Your task to perform on an android device: Add acer predator to the cart on target.com Image 0: 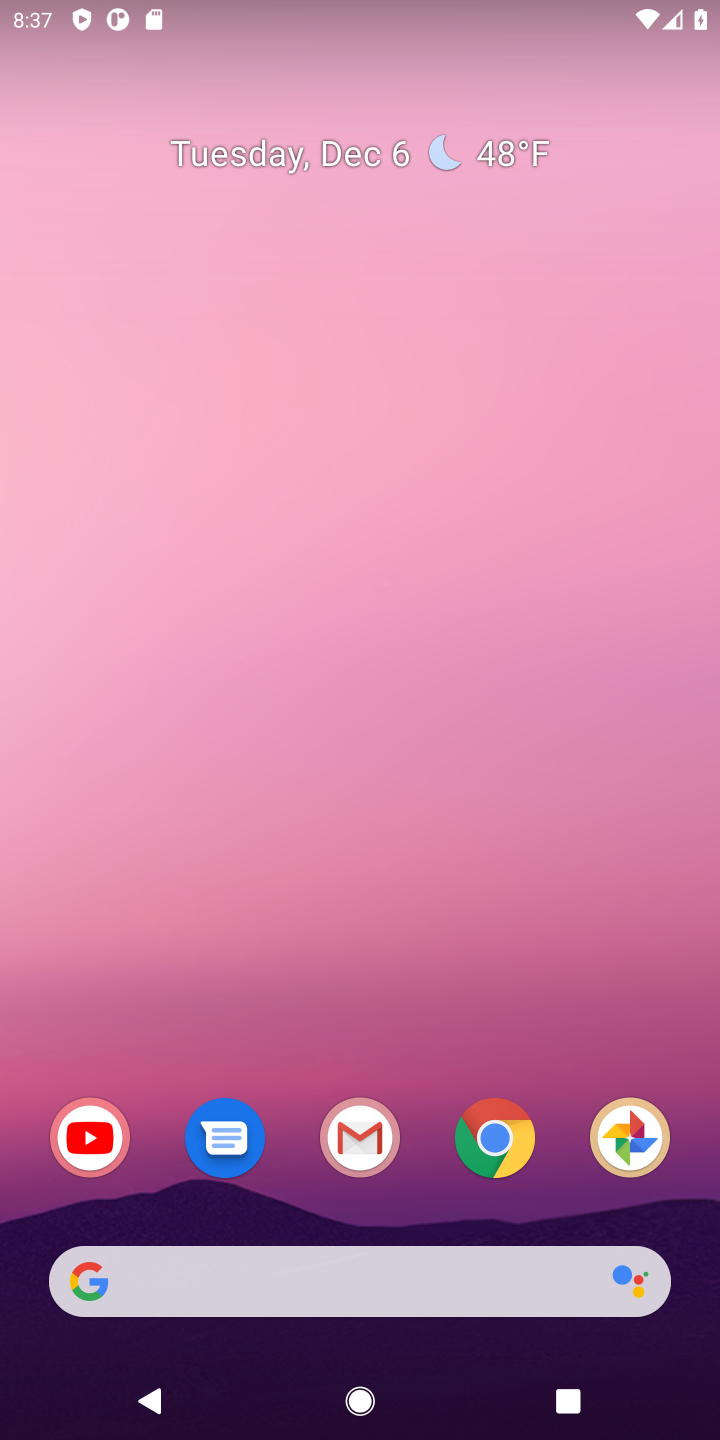
Step 0: click (487, 1139)
Your task to perform on an android device: Add acer predator to the cart on target.com Image 1: 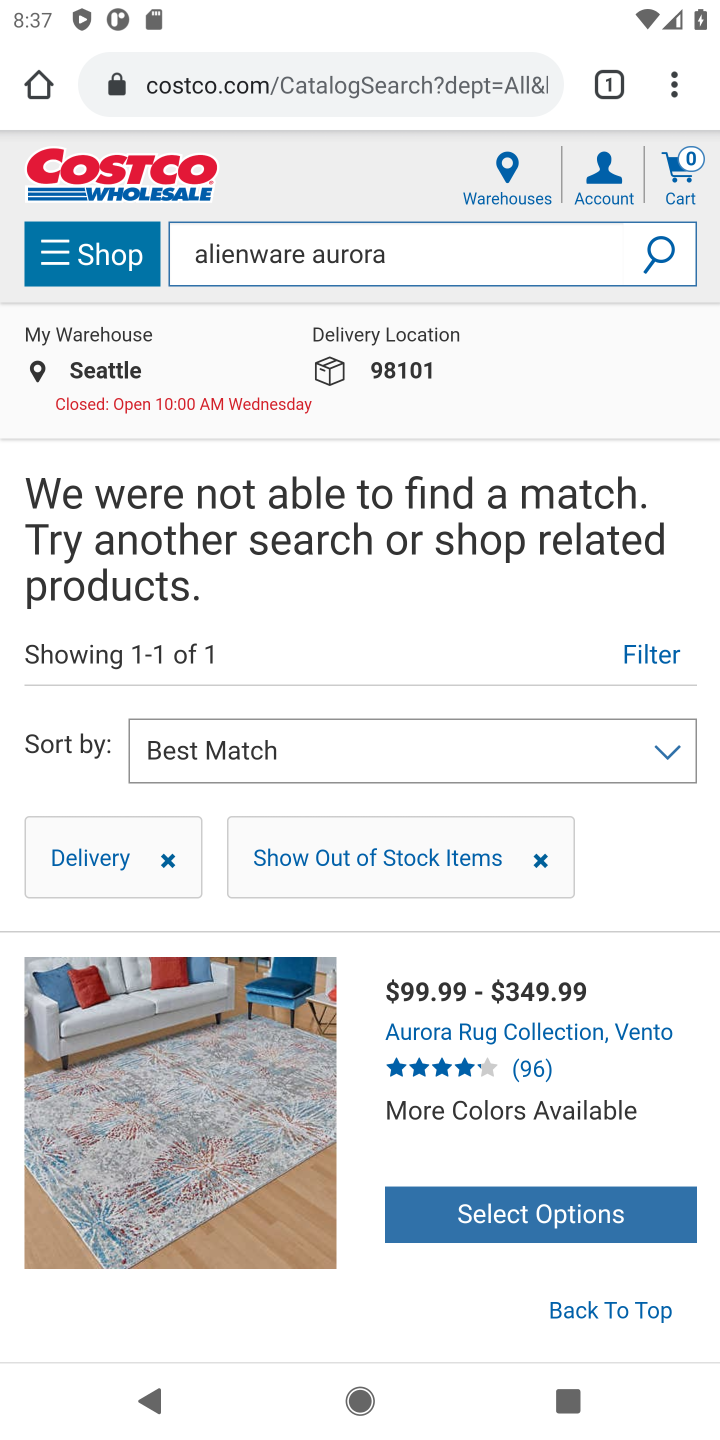
Step 1: click (243, 90)
Your task to perform on an android device: Add acer predator to the cart on target.com Image 2: 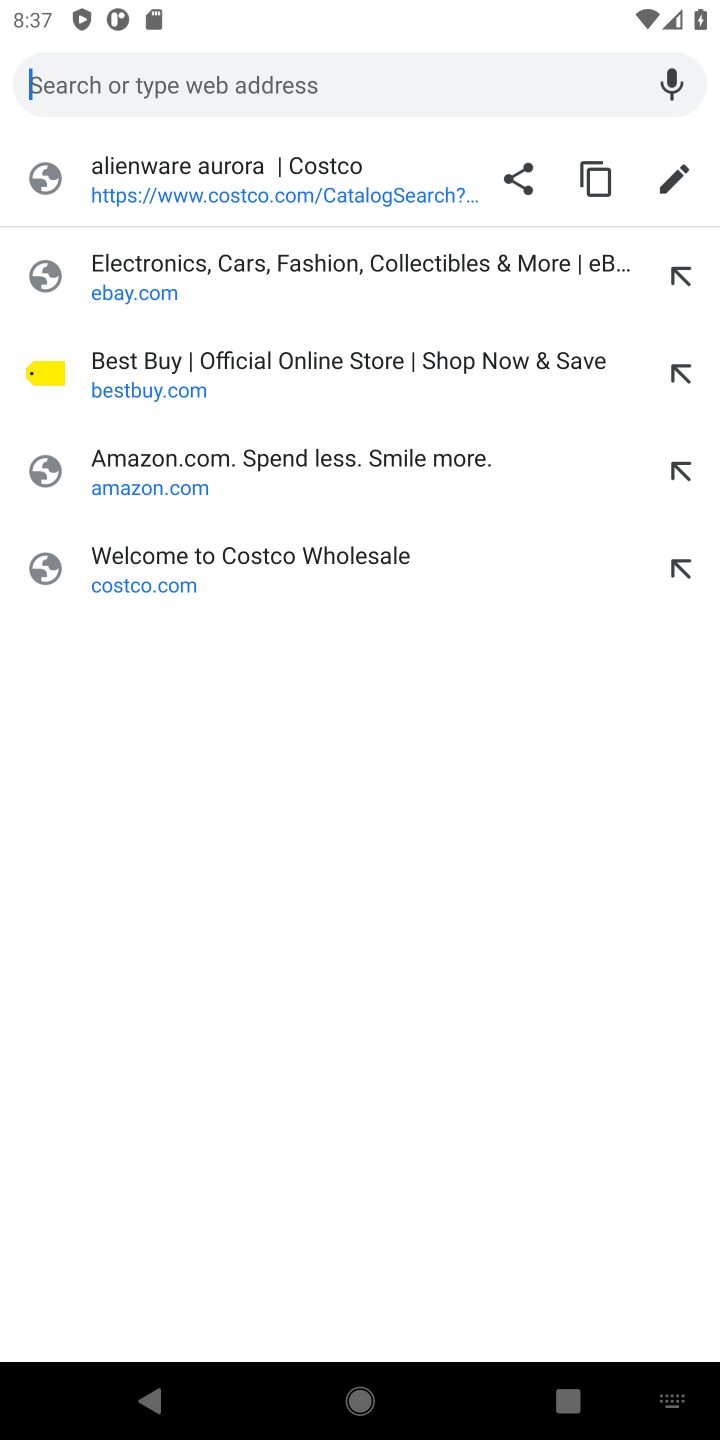
Step 2: type "target.com"
Your task to perform on an android device: Add acer predator to the cart on target.com Image 3: 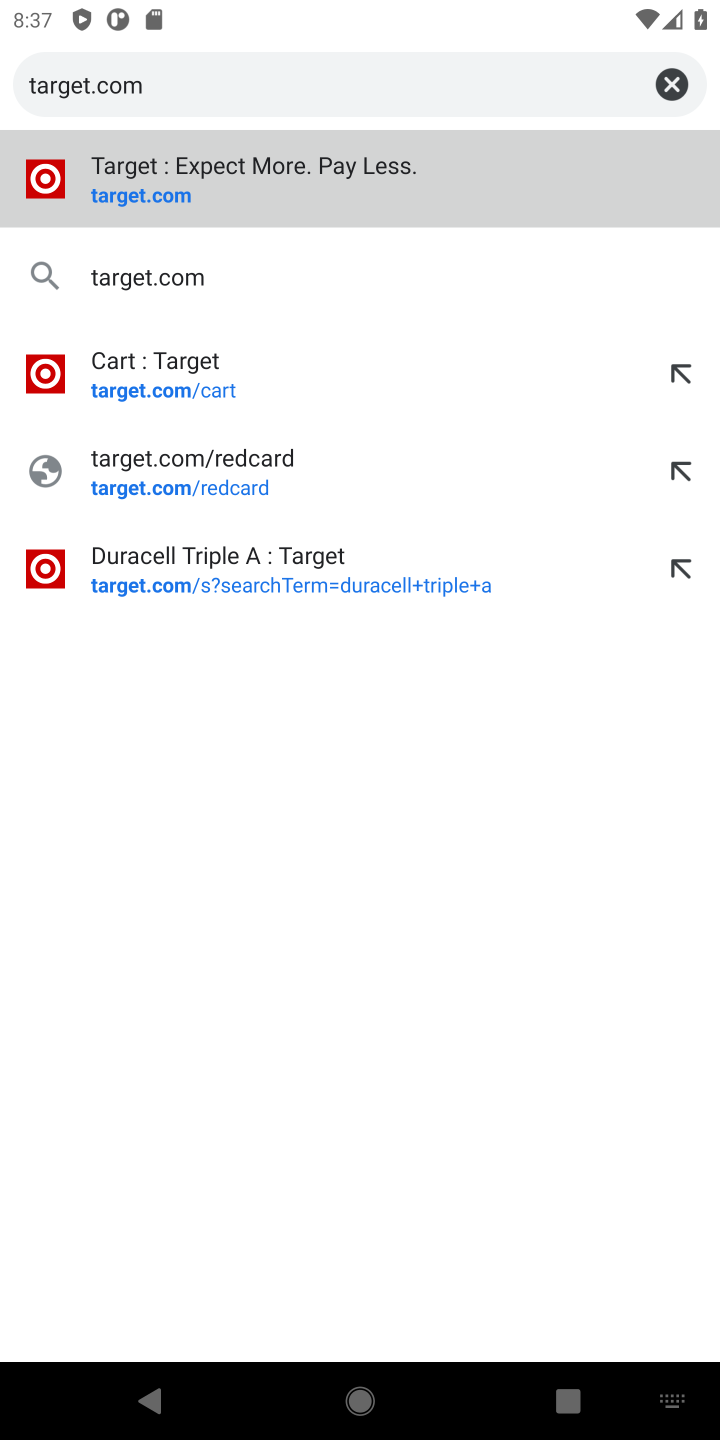
Step 3: click (118, 166)
Your task to perform on an android device: Add acer predator to the cart on target.com Image 4: 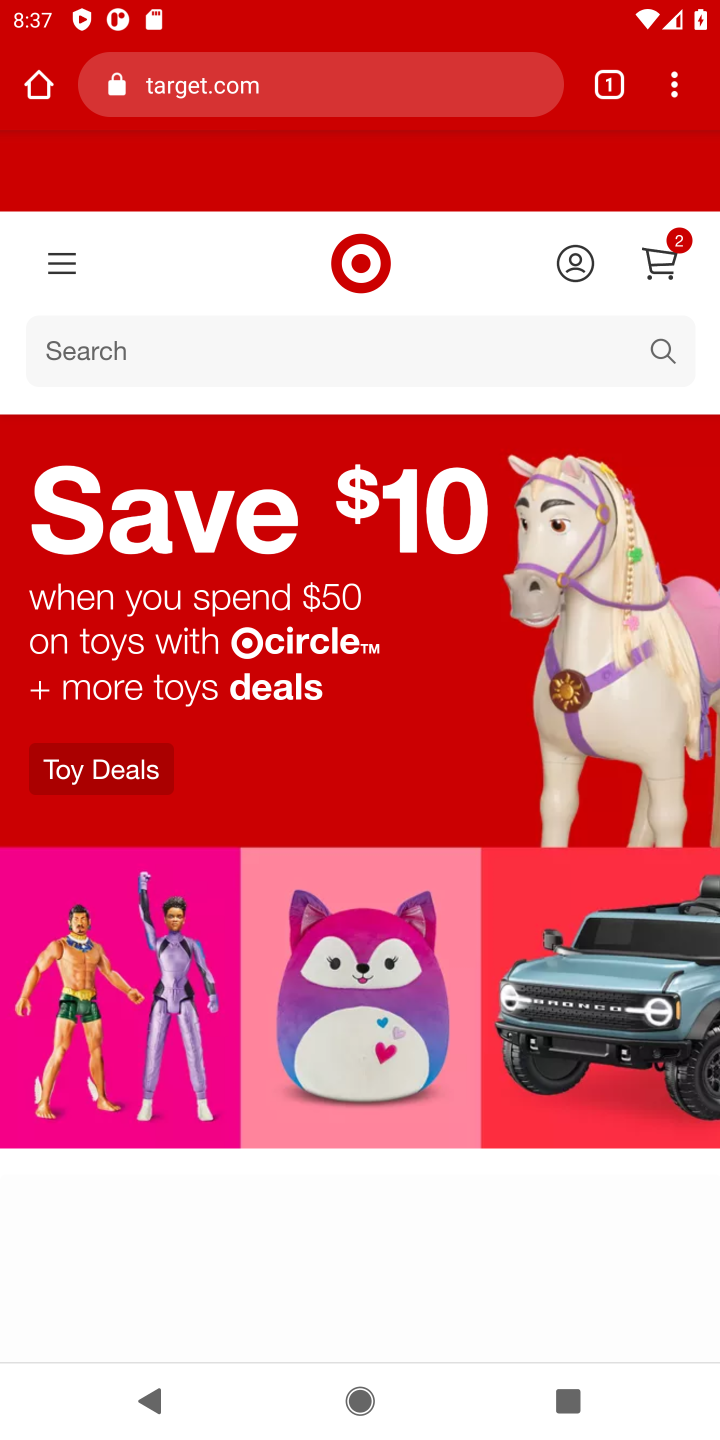
Step 4: click (116, 349)
Your task to perform on an android device: Add acer predator to the cart on target.com Image 5: 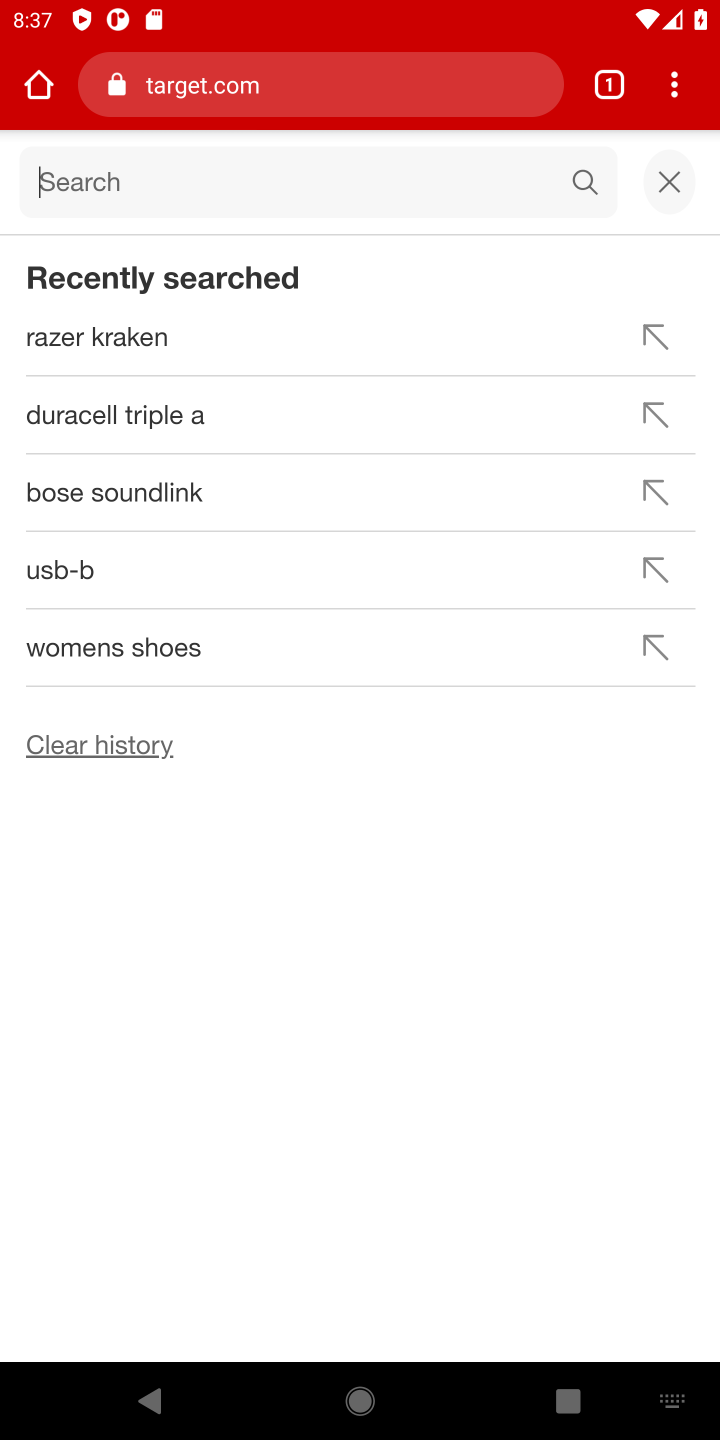
Step 5: type "acer predator"
Your task to perform on an android device: Add acer predator to the cart on target.com Image 6: 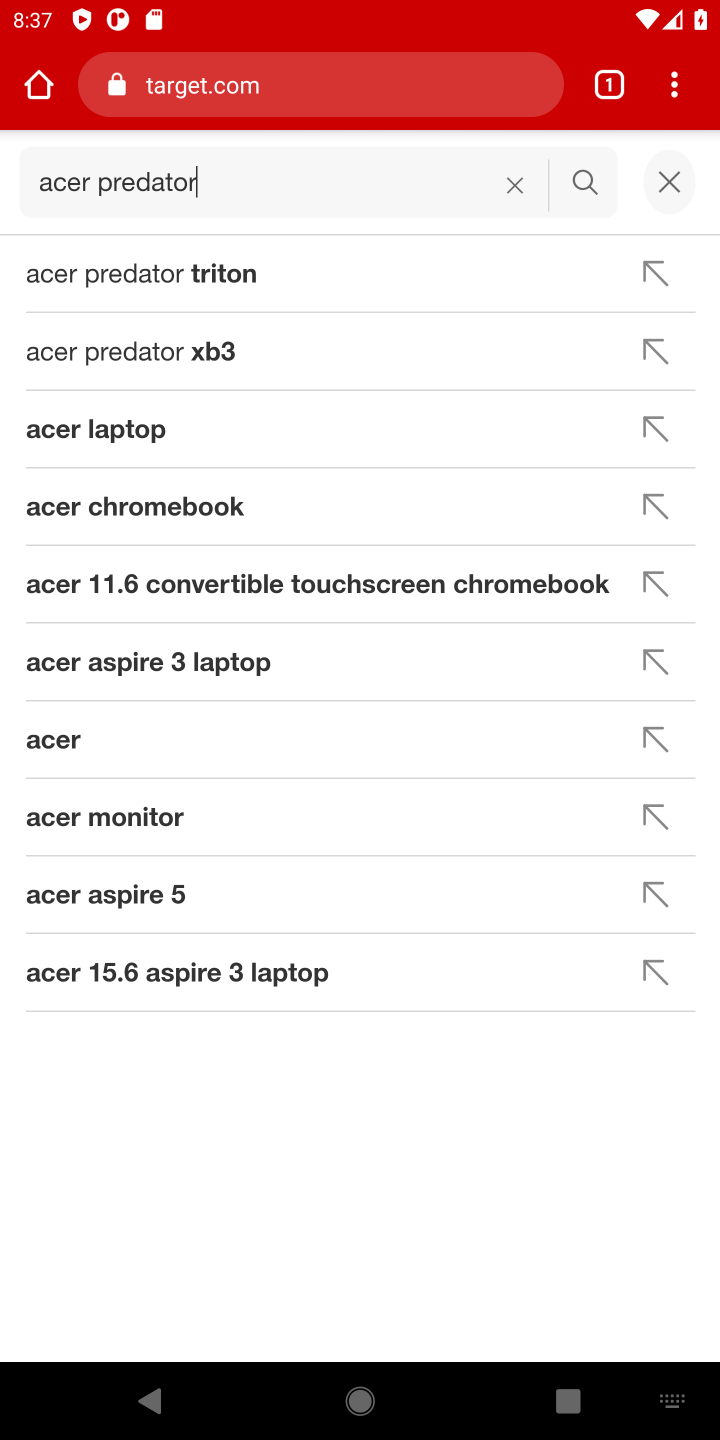
Step 6: click (585, 170)
Your task to perform on an android device: Add acer predator to the cart on target.com Image 7: 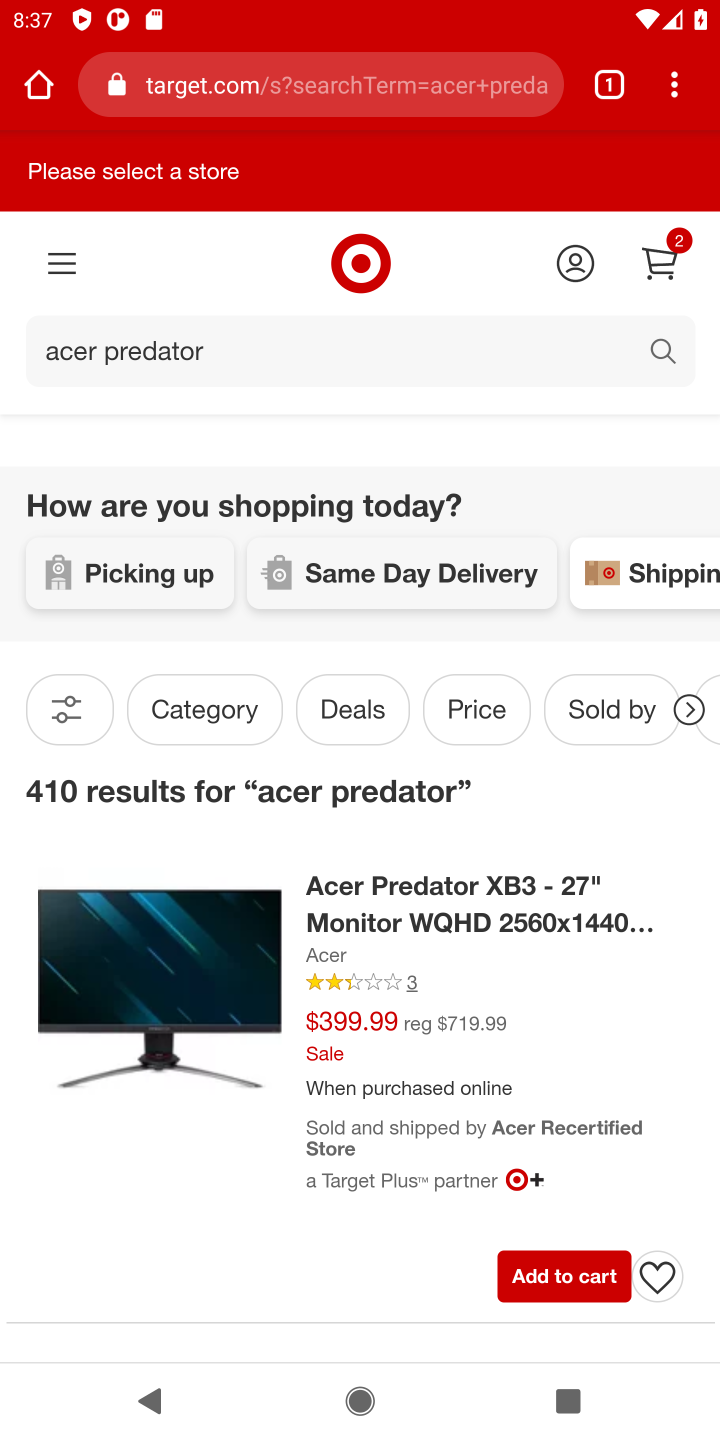
Step 7: click (547, 1274)
Your task to perform on an android device: Add acer predator to the cart on target.com Image 8: 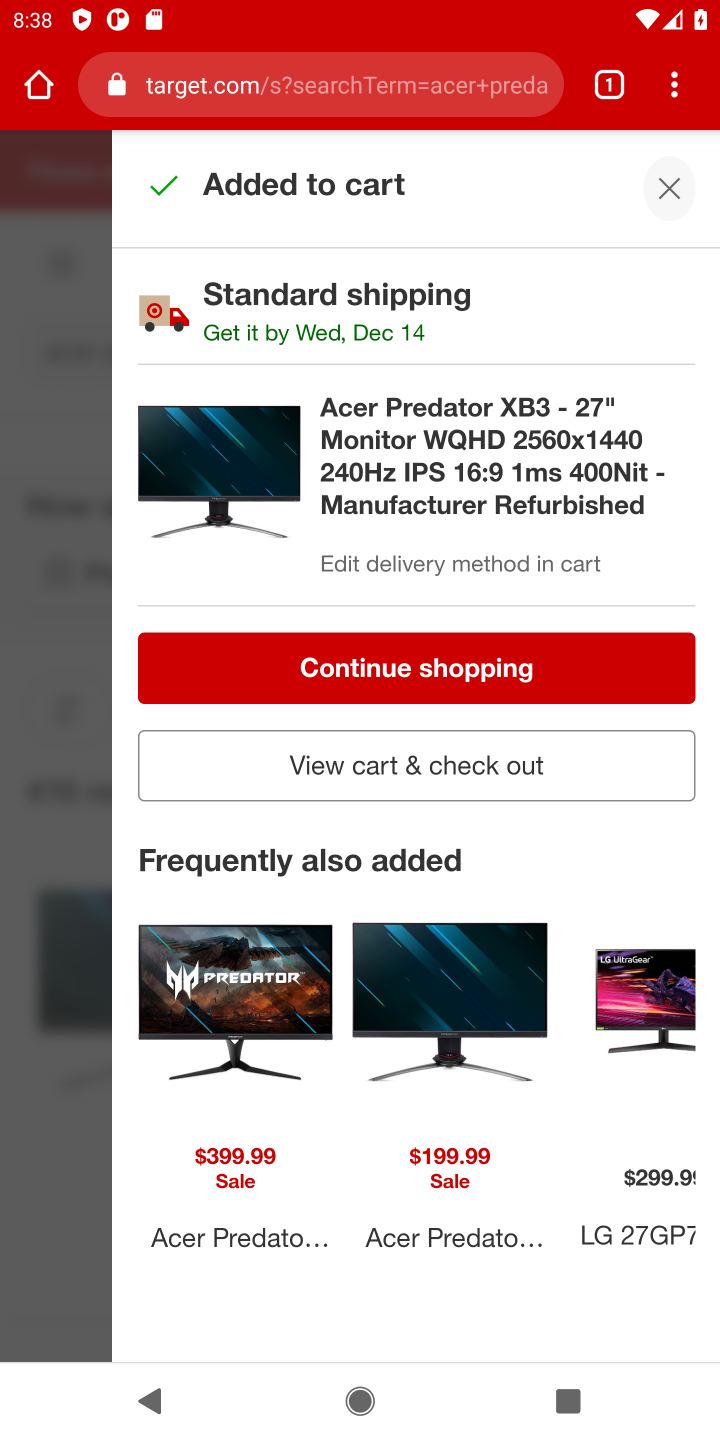
Step 8: task complete